Your task to perform on an android device: Go to CNN.com Image 0: 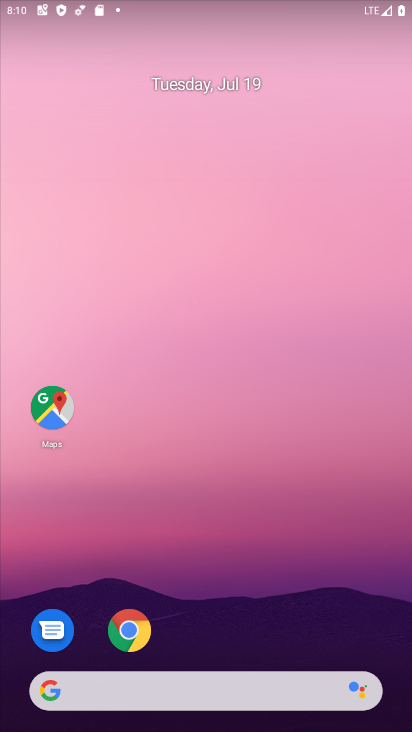
Step 0: drag from (236, 647) to (308, 116)
Your task to perform on an android device: Go to CNN.com Image 1: 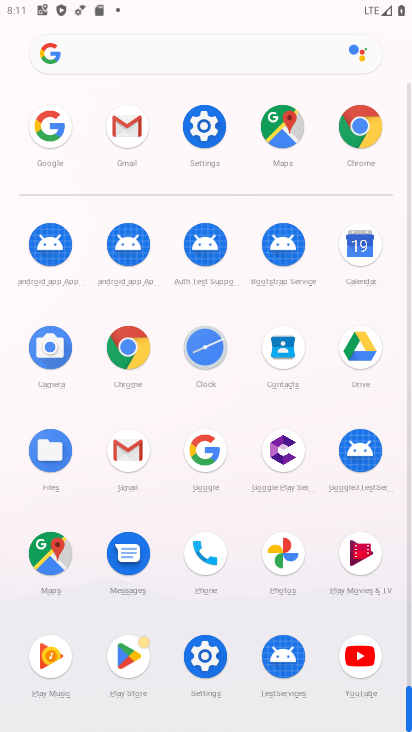
Step 1: click (127, 370)
Your task to perform on an android device: Go to CNN.com Image 2: 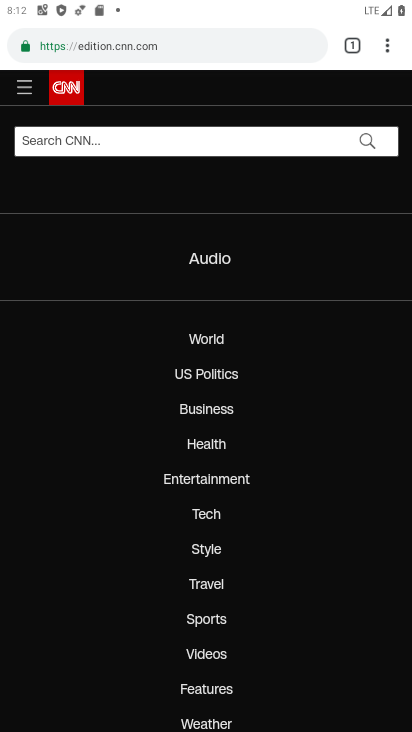
Step 2: task complete